Your task to perform on an android device: Go to Google Image 0: 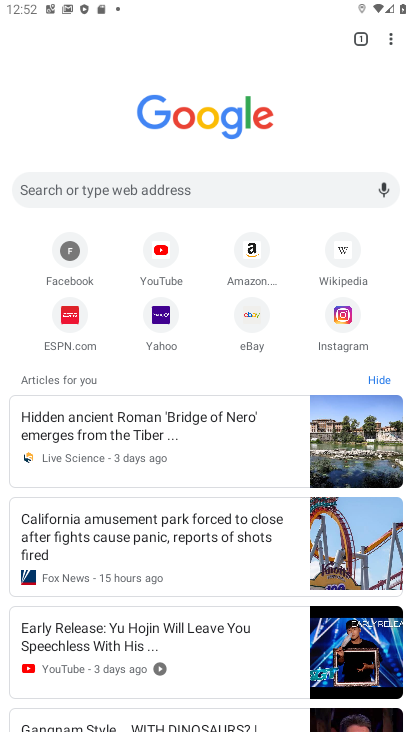
Step 0: press home button
Your task to perform on an android device: Go to Google Image 1: 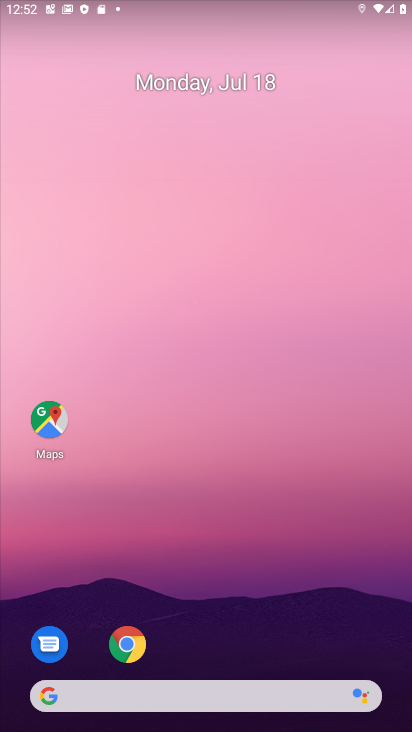
Step 1: drag from (249, 646) to (245, 267)
Your task to perform on an android device: Go to Google Image 2: 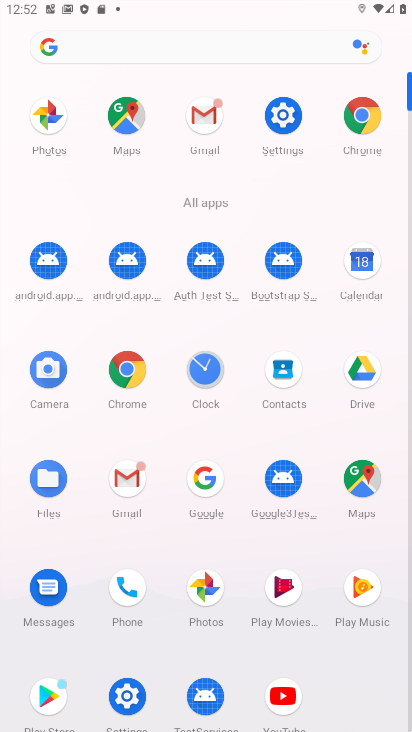
Step 2: click (204, 468)
Your task to perform on an android device: Go to Google Image 3: 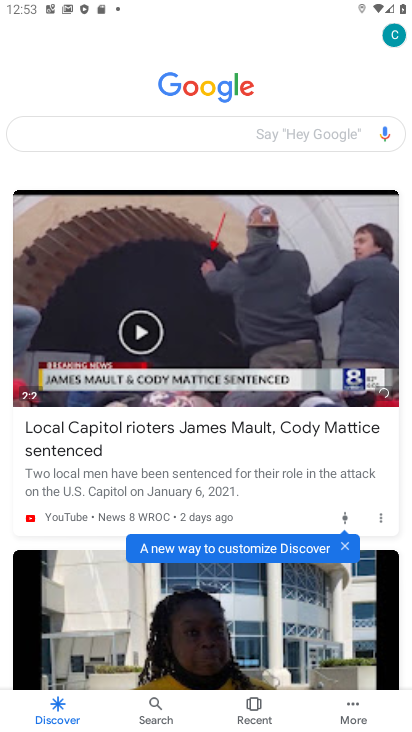
Step 3: task complete